Your task to perform on an android device: Open the stopwatch Image 0: 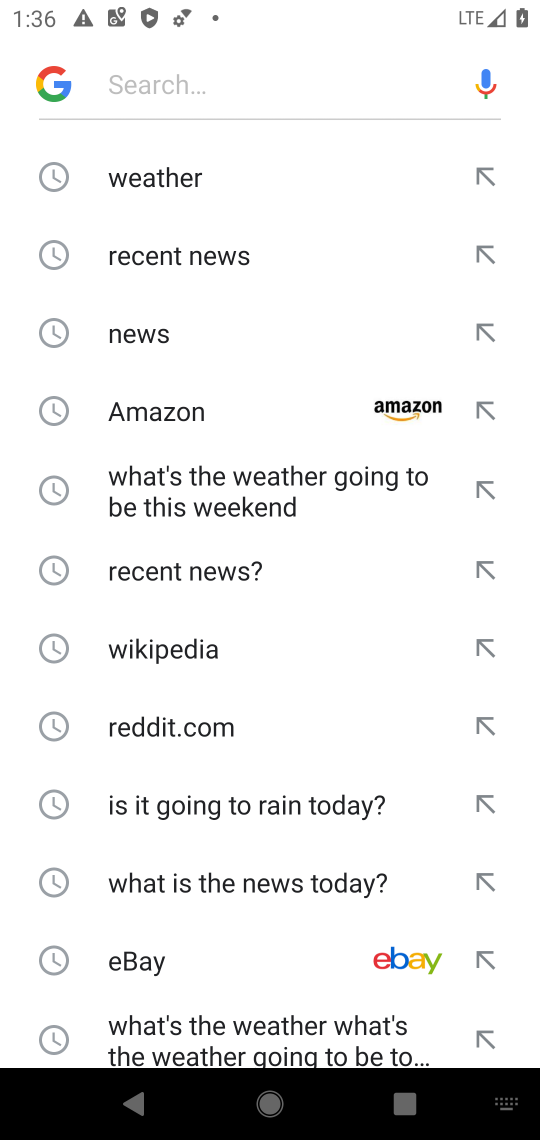
Step 0: press home button
Your task to perform on an android device: Open the stopwatch Image 1: 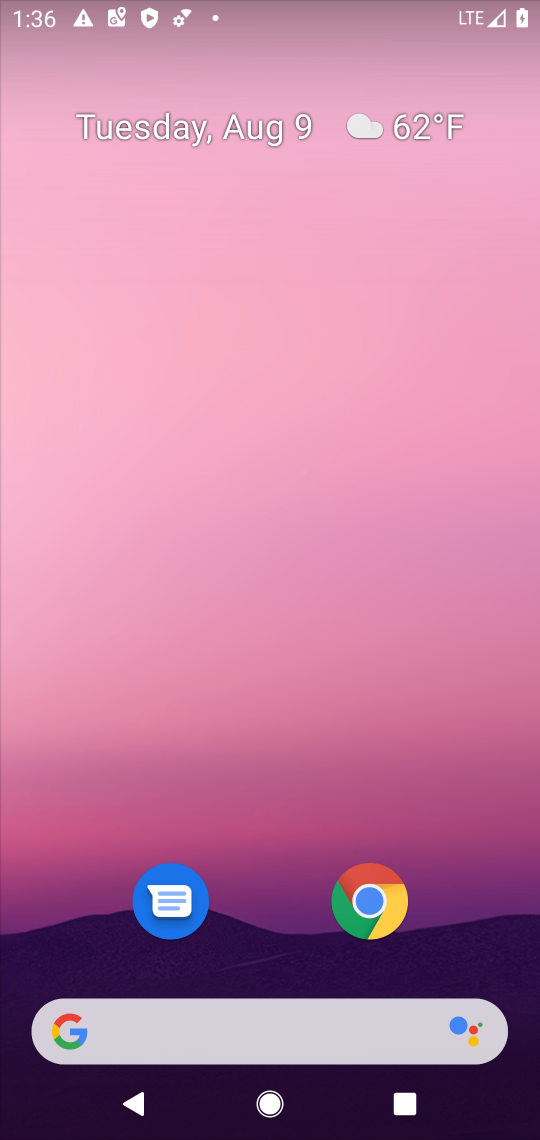
Step 1: drag from (518, 967) to (413, 104)
Your task to perform on an android device: Open the stopwatch Image 2: 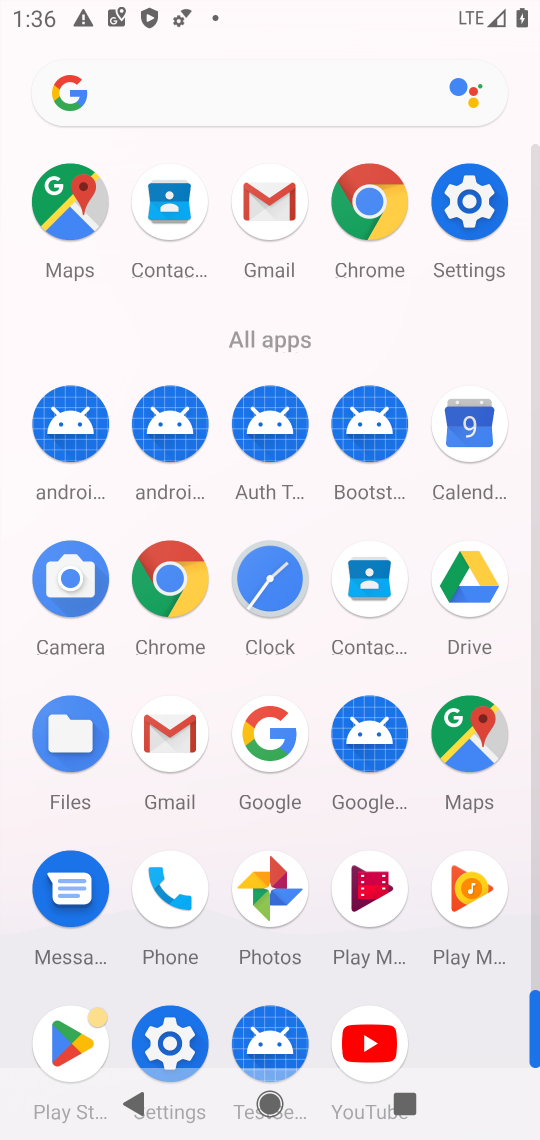
Step 2: click (265, 575)
Your task to perform on an android device: Open the stopwatch Image 3: 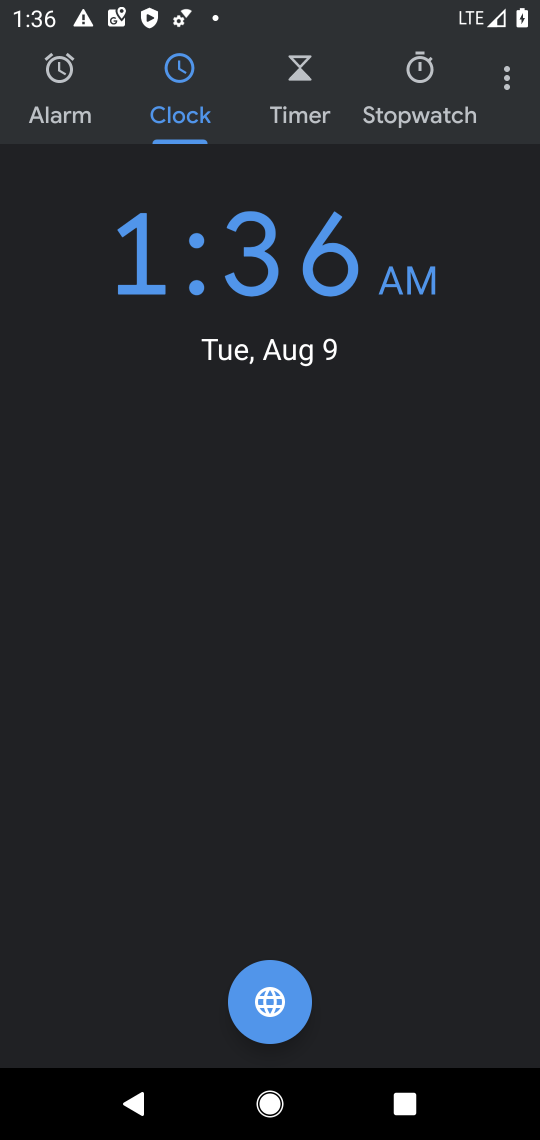
Step 3: click (409, 70)
Your task to perform on an android device: Open the stopwatch Image 4: 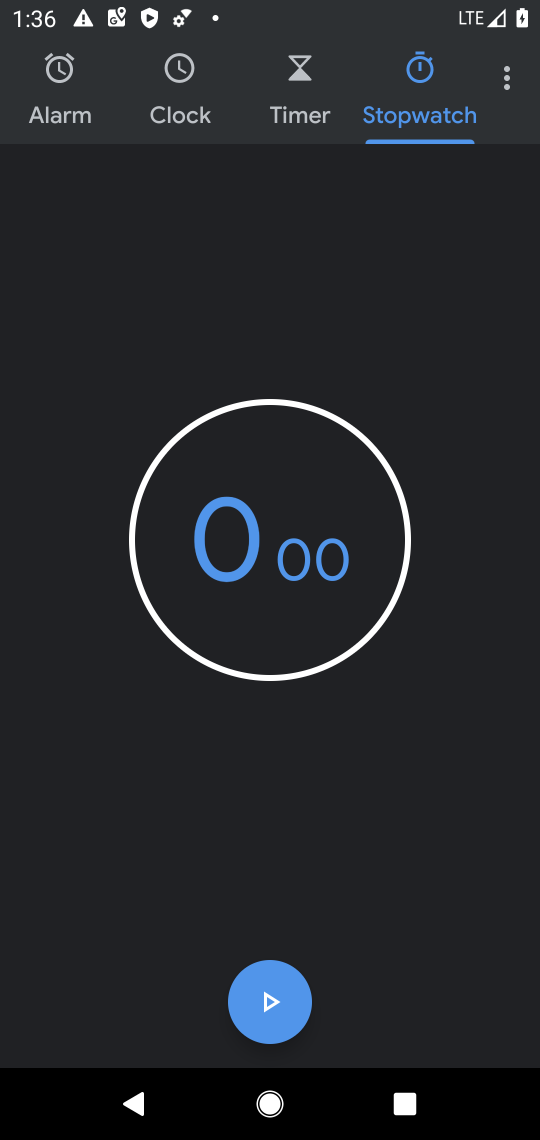
Step 4: task complete